Your task to perform on an android device: delete location history Image 0: 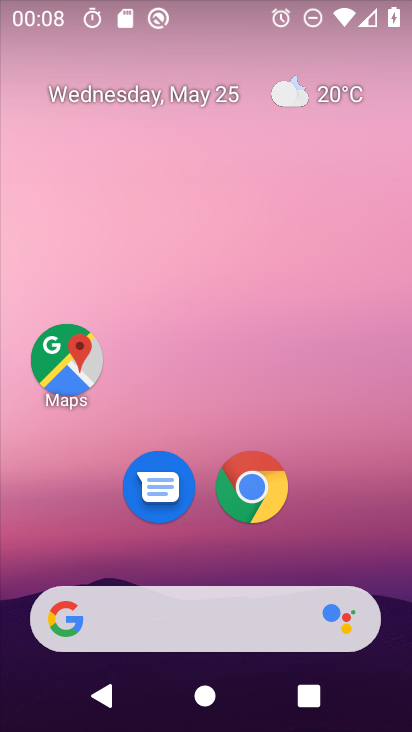
Step 0: click (68, 366)
Your task to perform on an android device: delete location history Image 1: 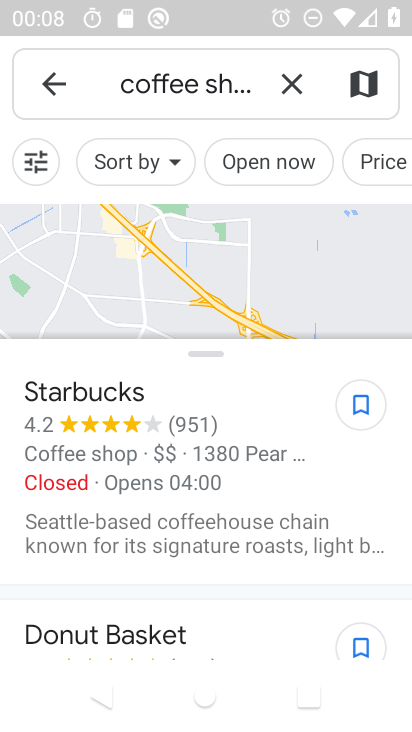
Step 1: click (284, 88)
Your task to perform on an android device: delete location history Image 2: 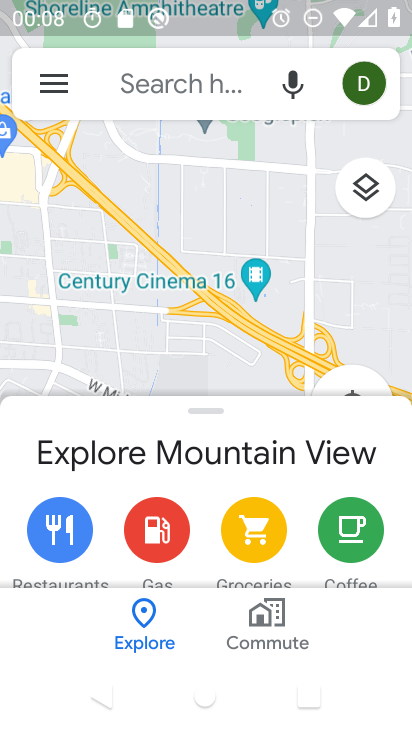
Step 2: click (50, 89)
Your task to perform on an android device: delete location history Image 3: 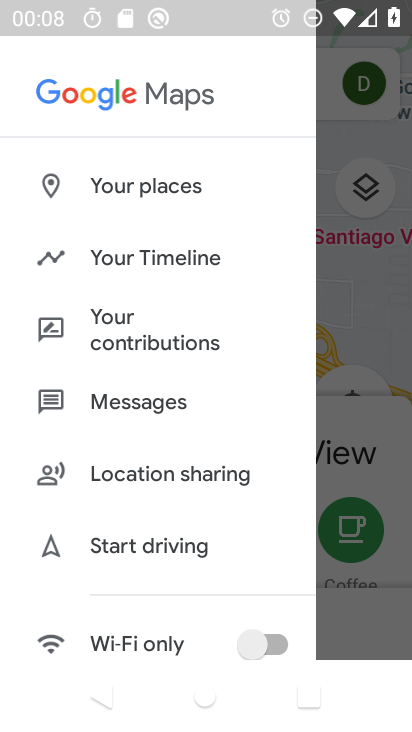
Step 3: click (111, 260)
Your task to perform on an android device: delete location history Image 4: 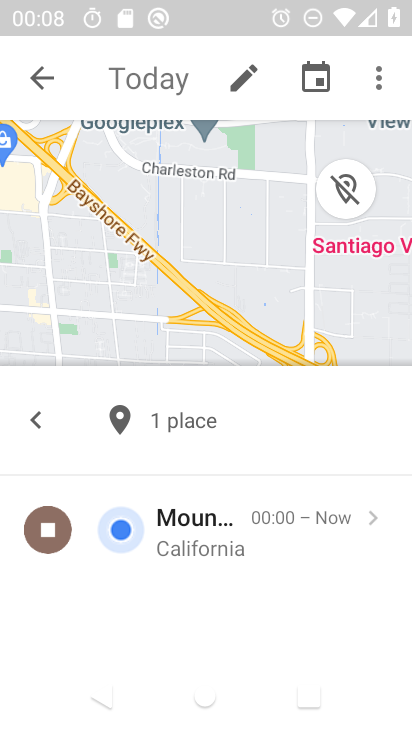
Step 4: click (382, 84)
Your task to perform on an android device: delete location history Image 5: 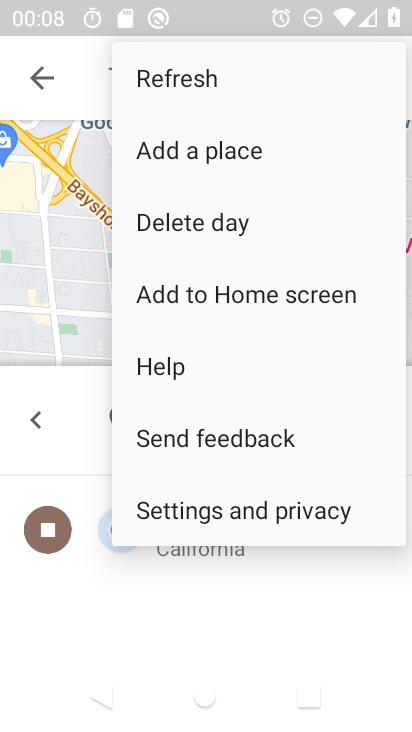
Step 5: click (300, 507)
Your task to perform on an android device: delete location history Image 6: 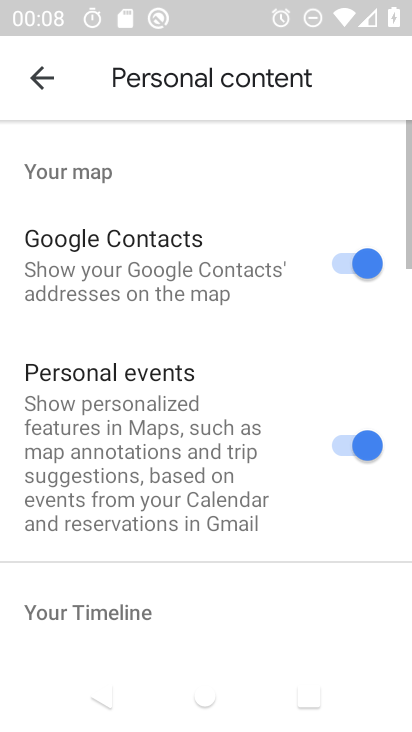
Step 6: drag from (147, 505) to (165, 1)
Your task to perform on an android device: delete location history Image 7: 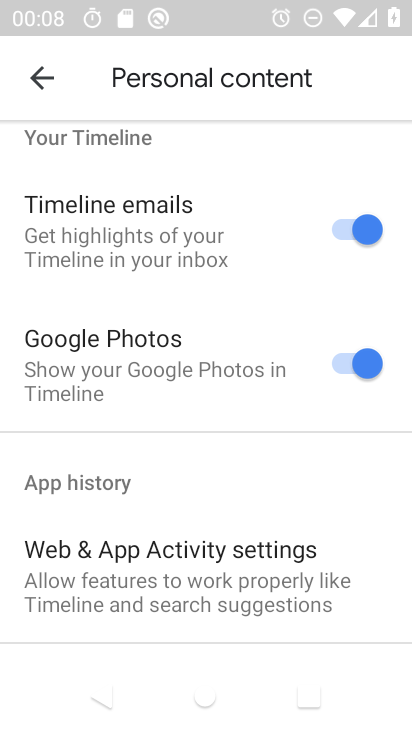
Step 7: drag from (186, 484) to (173, 53)
Your task to perform on an android device: delete location history Image 8: 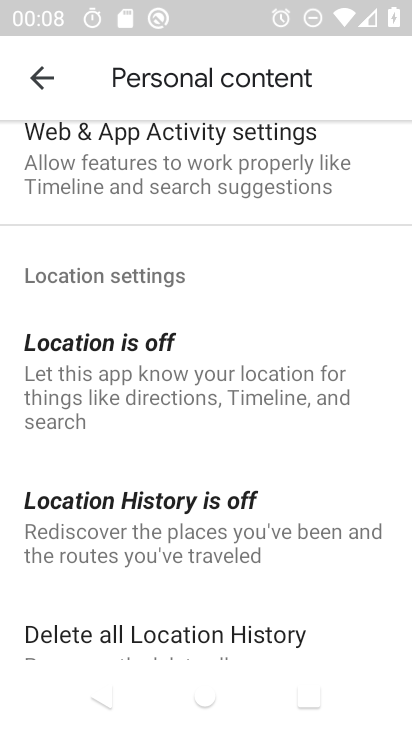
Step 8: drag from (207, 540) to (194, 273)
Your task to perform on an android device: delete location history Image 9: 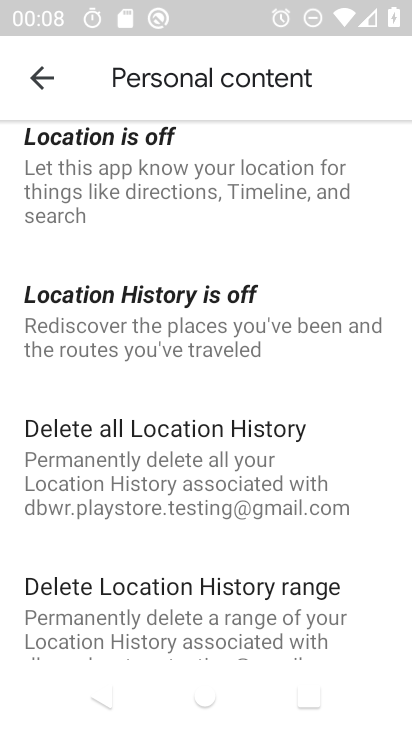
Step 9: click (178, 437)
Your task to perform on an android device: delete location history Image 10: 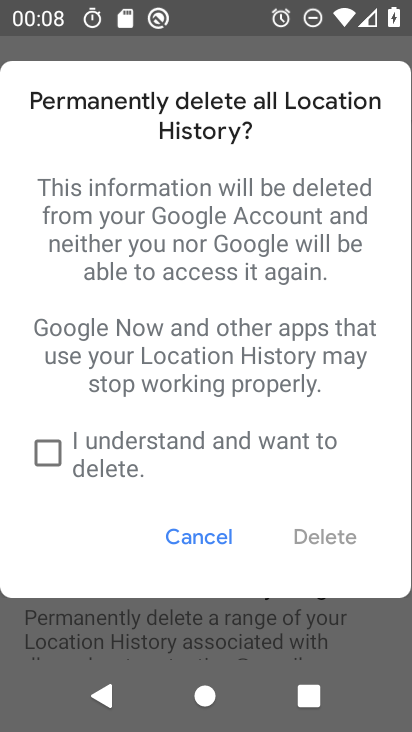
Step 10: click (50, 463)
Your task to perform on an android device: delete location history Image 11: 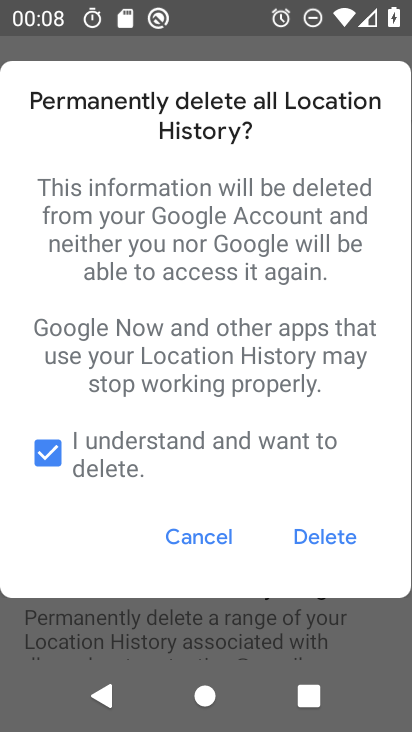
Step 11: click (354, 539)
Your task to perform on an android device: delete location history Image 12: 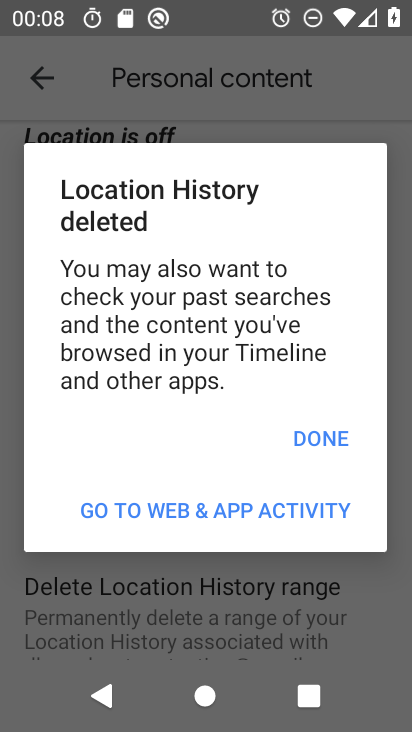
Step 12: click (331, 432)
Your task to perform on an android device: delete location history Image 13: 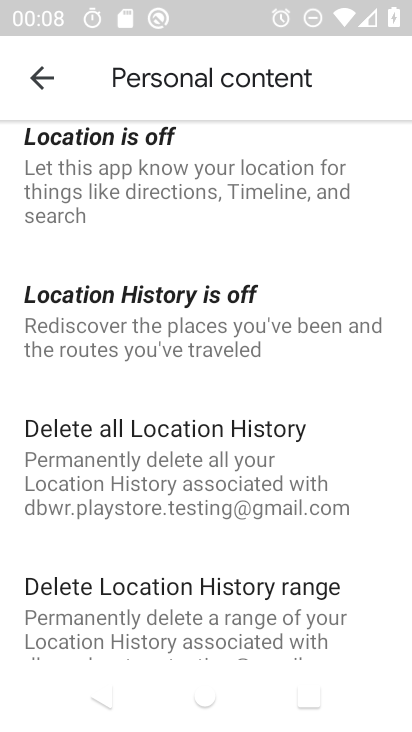
Step 13: task complete